Your task to perform on an android device: See recent photos Image 0: 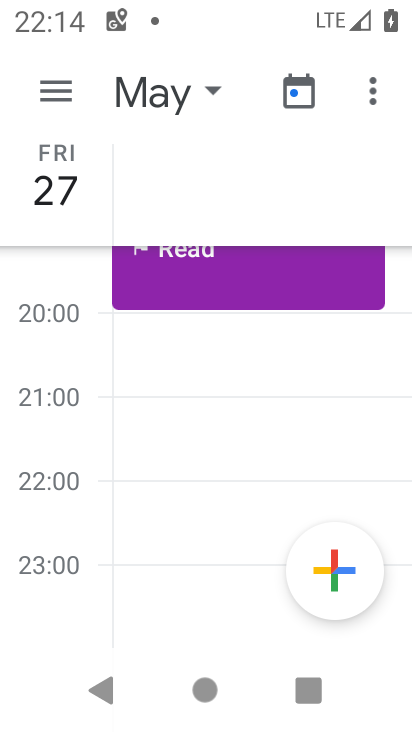
Step 0: press home button
Your task to perform on an android device: See recent photos Image 1: 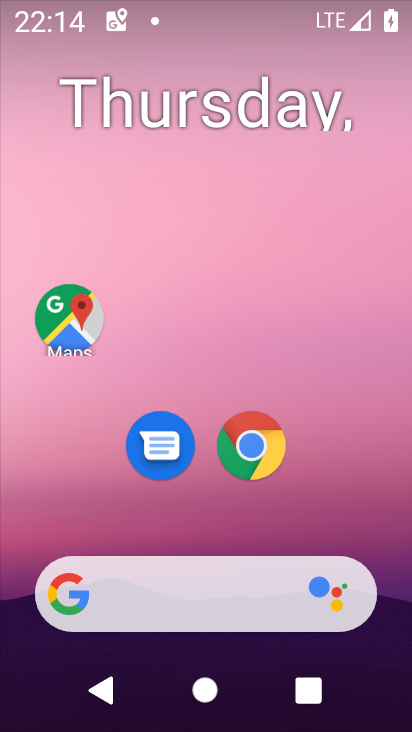
Step 1: drag from (204, 512) to (217, 203)
Your task to perform on an android device: See recent photos Image 2: 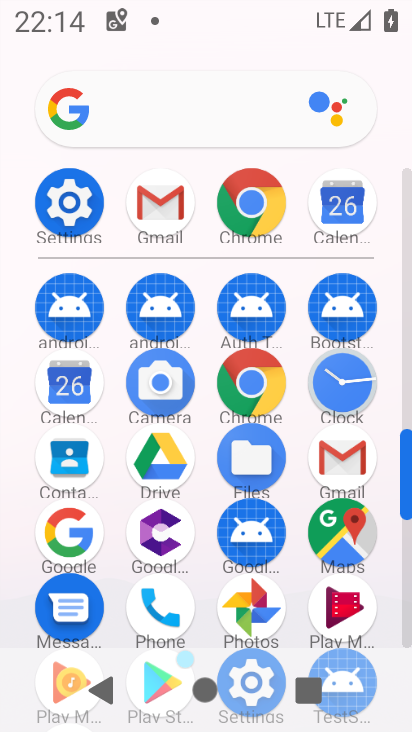
Step 2: drag from (204, 265) to (202, 115)
Your task to perform on an android device: See recent photos Image 3: 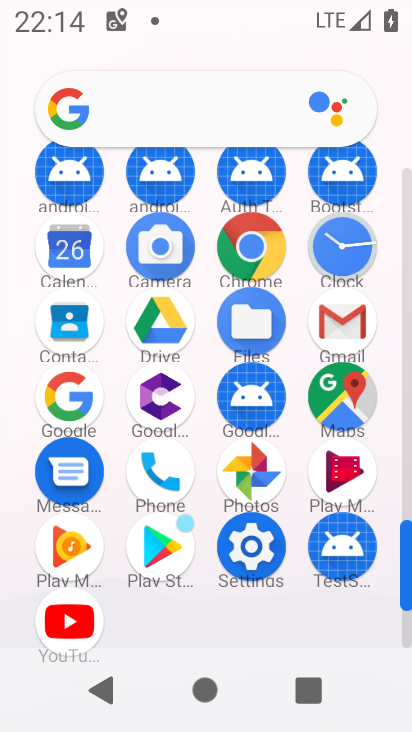
Step 3: click (264, 473)
Your task to perform on an android device: See recent photos Image 4: 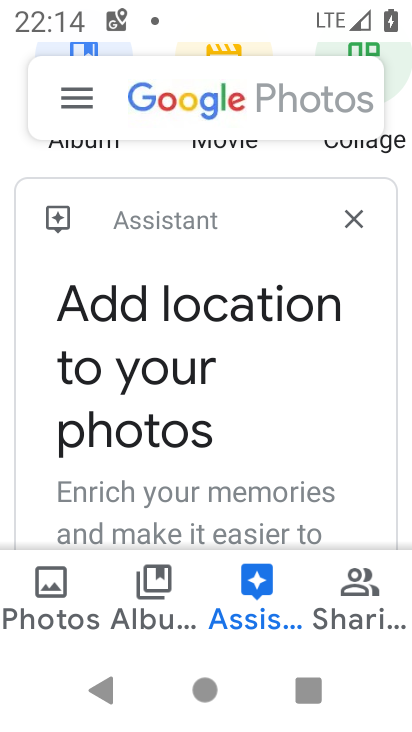
Step 4: click (48, 596)
Your task to perform on an android device: See recent photos Image 5: 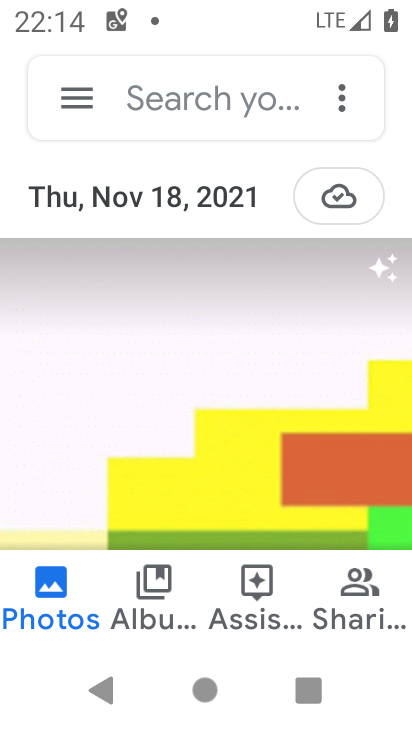
Step 5: task complete